Your task to perform on an android device: turn pop-ups off in chrome Image 0: 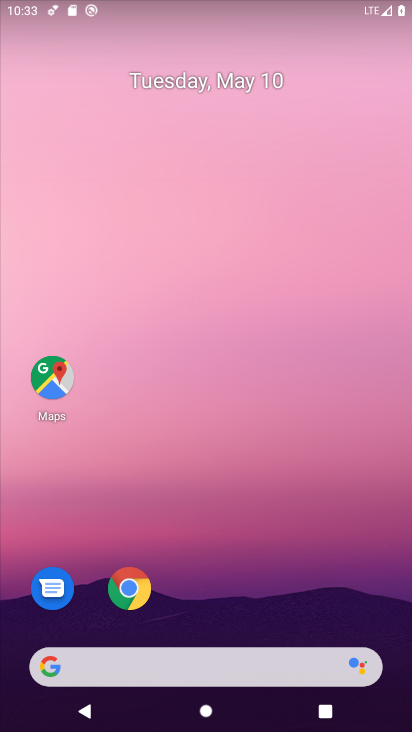
Step 0: click (126, 593)
Your task to perform on an android device: turn pop-ups off in chrome Image 1: 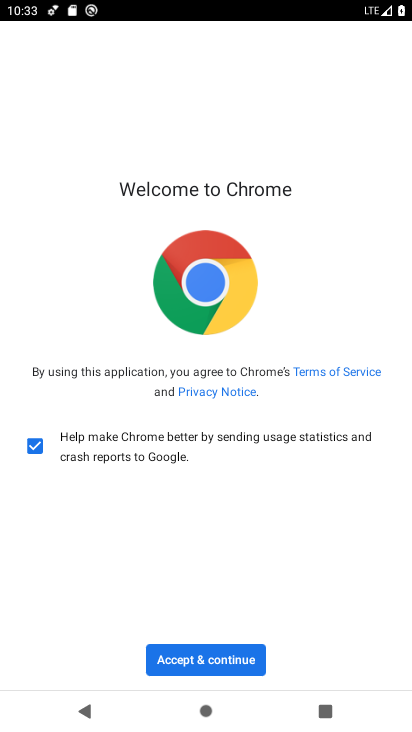
Step 1: click (237, 646)
Your task to perform on an android device: turn pop-ups off in chrome Image 2: 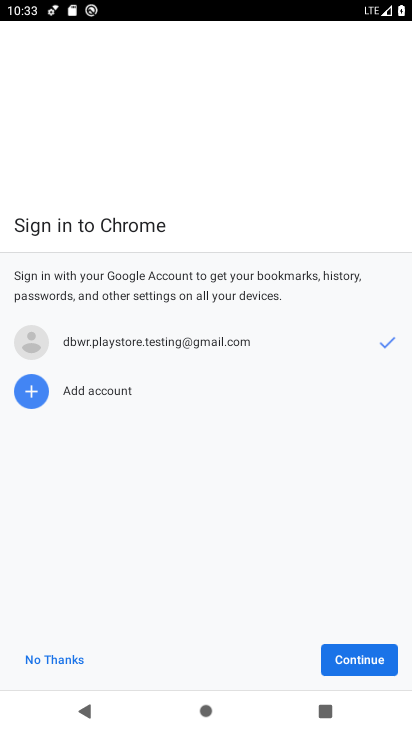
Step 2: click (332, 652)
Your task to perform on an android device: turn pop-ups off in chrome Image 3: 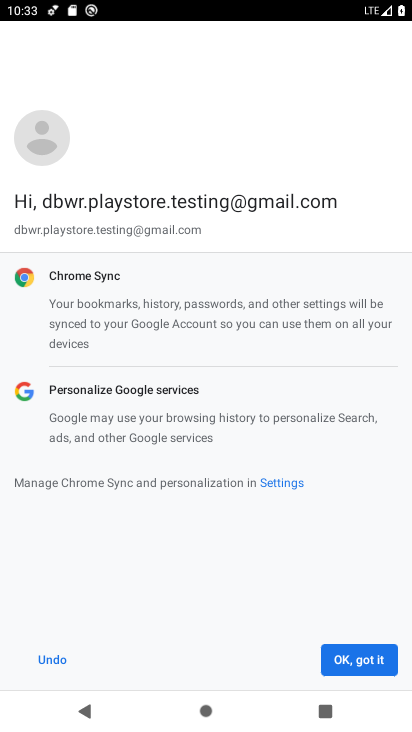
Step 3: click (332, 652)
Your task to perform on an android device: turn pop-ups off in chrome Image 4: 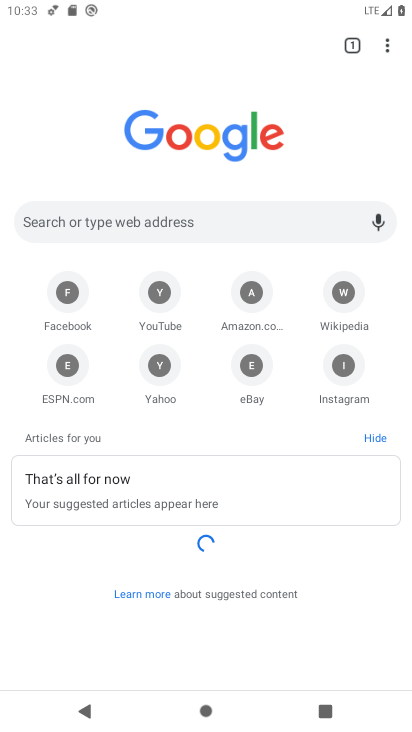
Step 4: drag from (388, 46) to (253, 392)
Your task to perform on an android device: turn pop-ups off in chrome Image 5: 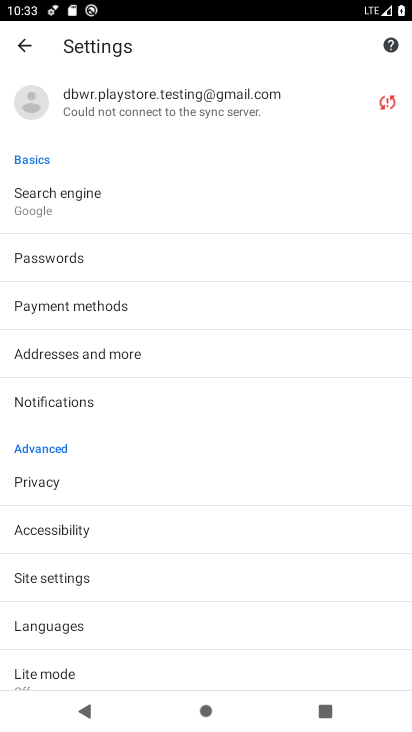
Step 5: drag from (185, 666) to (196, 466)
Your task to perform on an android device: turn pop-ups off in chrome Image 6: 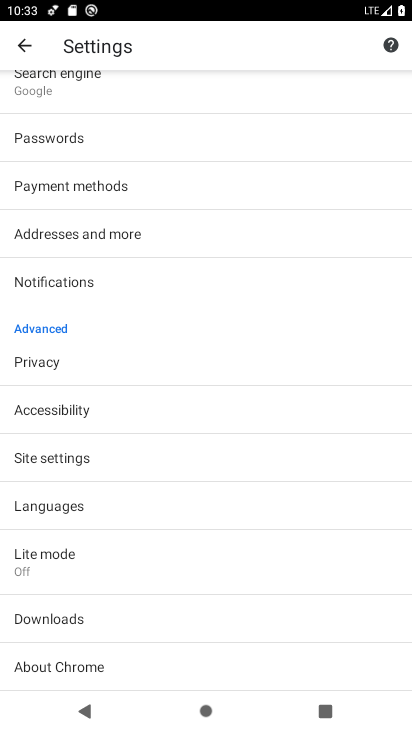
Step 6: click (89, 452)
Your task to perform on an android device: turn pop-ups off in chrome Image 7: 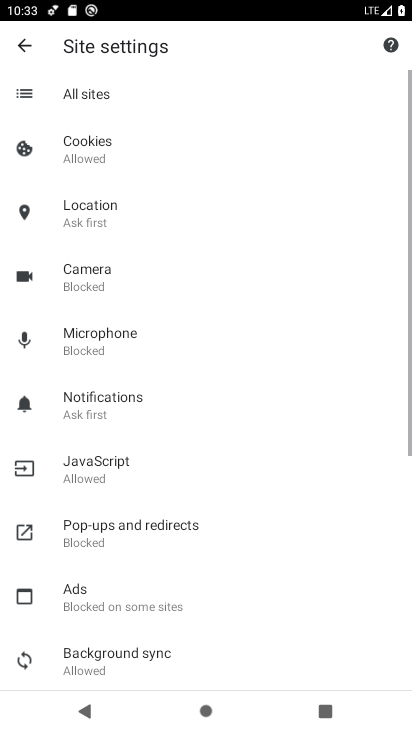
Step 7: drag from (242, 553) to (242, 514)
Your task to perform on an android device: turn pop-ups off in chrome Image 8: 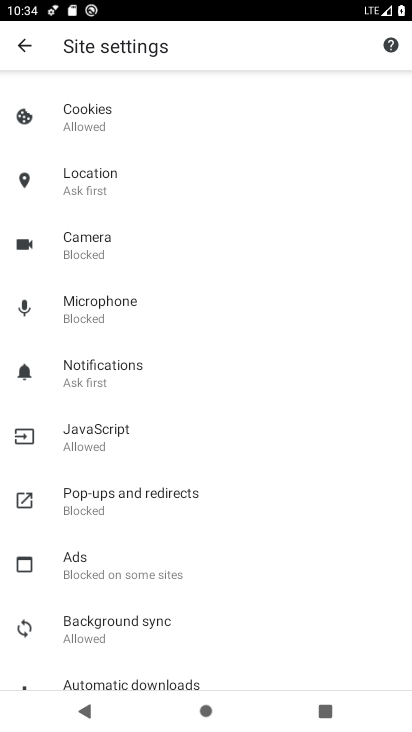
Step 8: click (205, 496)
Your task to perform on an android device: turn pop-ups off in chrome Image 9: 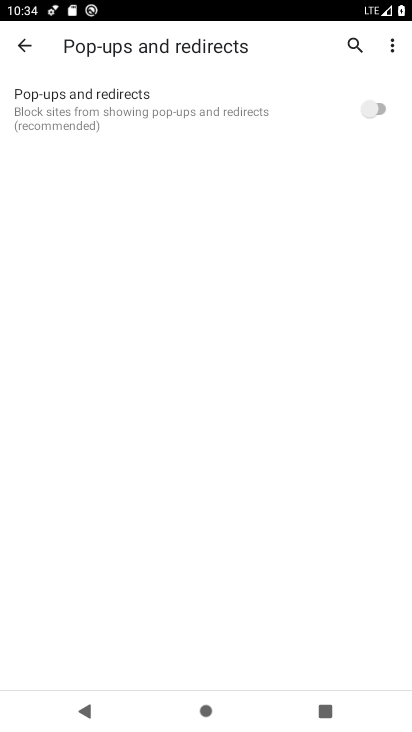
Step 9: task complete